Your task to perform on an android device: Go to network settings Image 0: 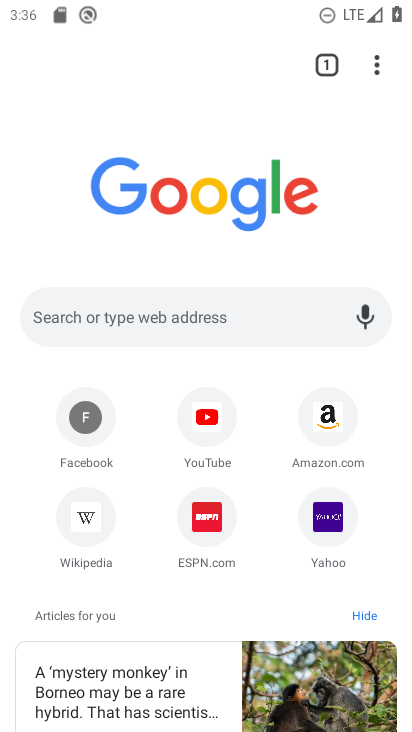
Step 0: press home button
Your task to perform on an android device: Go to network settings Image 1: 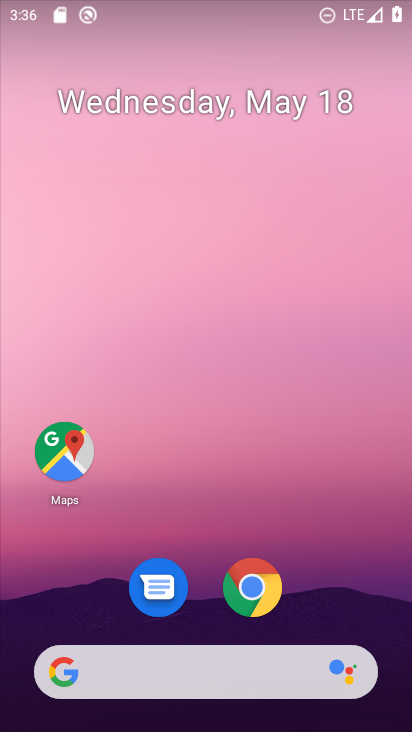
Step 1: drag from (193, 664) to (301, 116)
Your task to perform on an android device: Go to network settings Image 2: 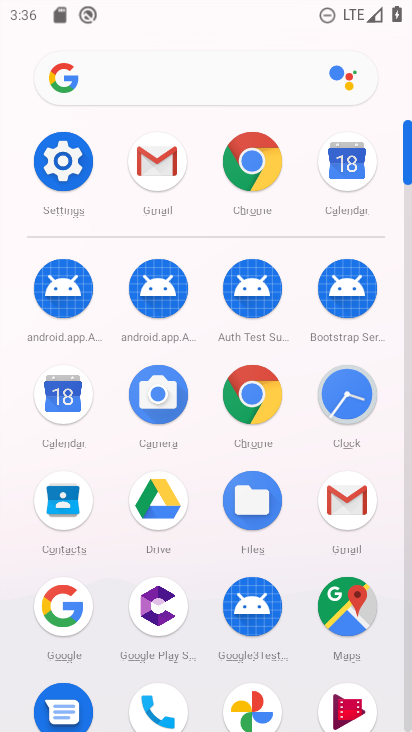
Step 2: click (64, 172)
Your task to perform on an android device: Go to network settings Image 3: 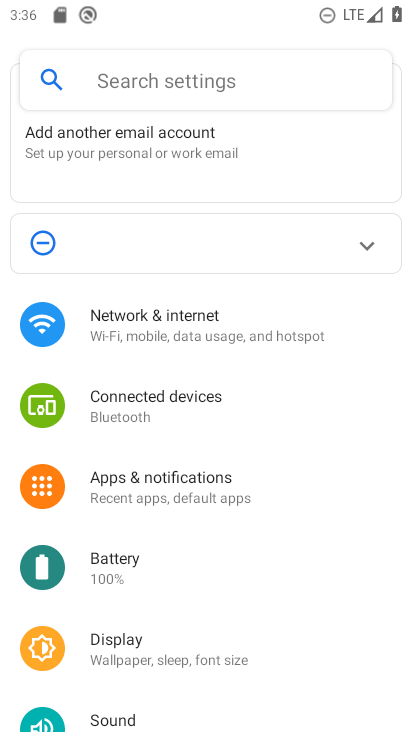
Step 3: click (145, 309)
Your task to perform on an android device: Go to network settings Image 4: 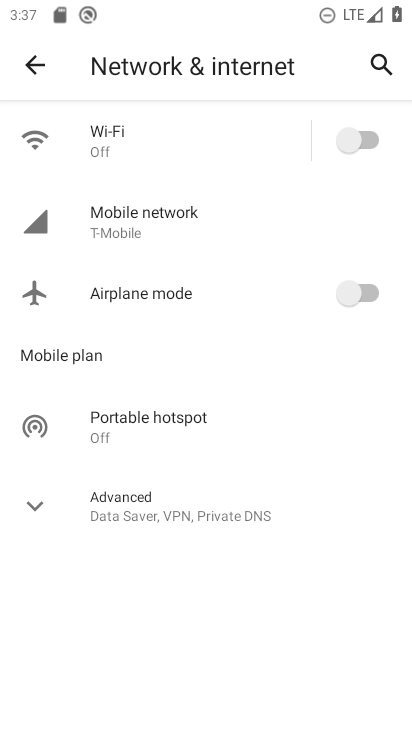
Step 4: task complete